Your task to perform on an android device: clear history in the chrome app Image 0: 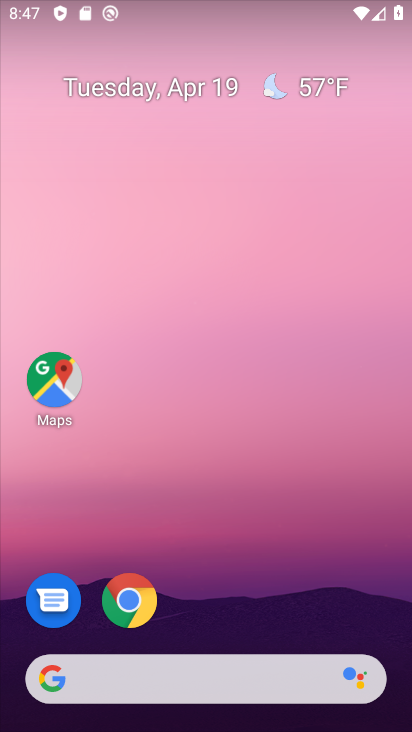
Step 0: drag from (360, 610) to (352, 120)
Your task to perform on an android device: clear history in the chrome app Image 1: 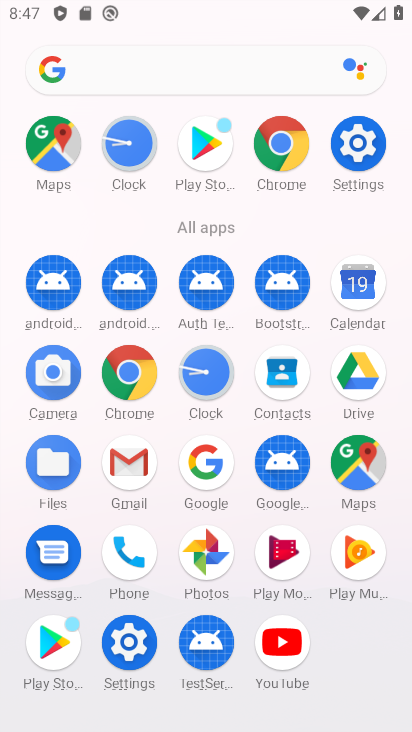
Step 1: click (291, 157)
Your task to perform on an android device: clear history in the chrome app Image 2: 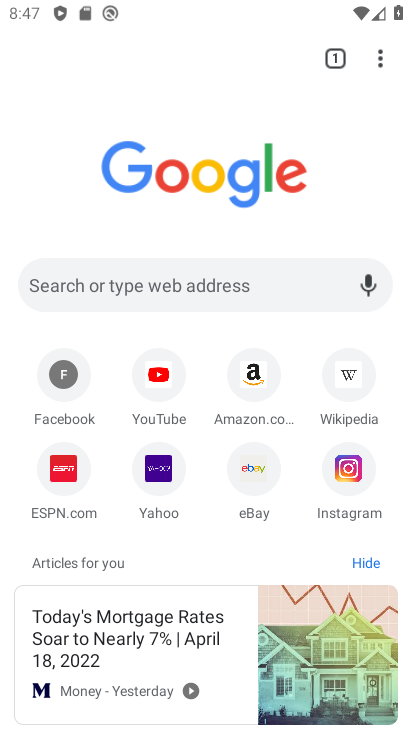
Step 2: click (376, 55)
Your task to perform on an android device: clear history in the chrome app Image 3: 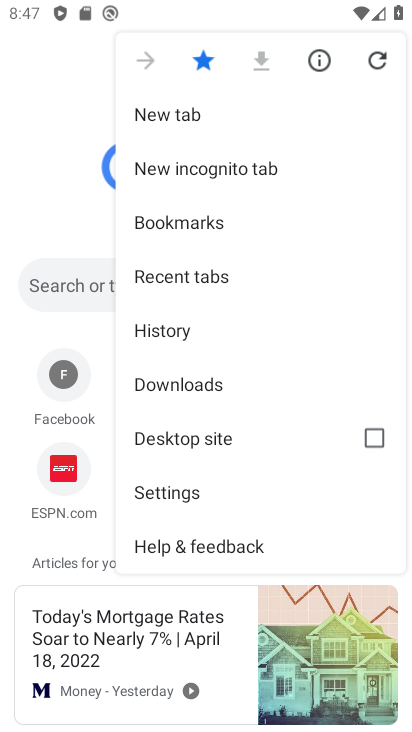
Step 3: click (176, 334)
Your task to perform on an android device: clear history in the chrome app Image 4: 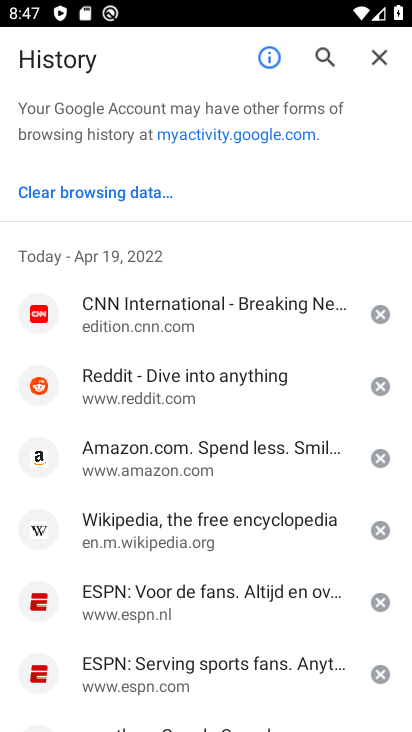
Step 4: click (132, 189)
Your task to perform on an android device: clear history in the chrome app Image 5: 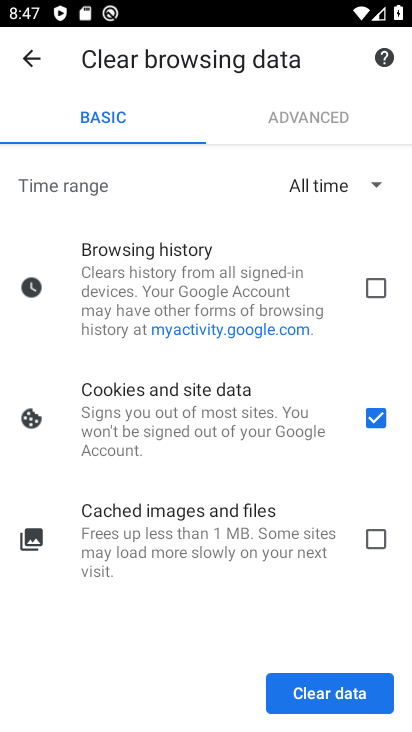
Step 5: click (334, 681)
Your task to perform on an android device: clear history in the chrome app Image 6: 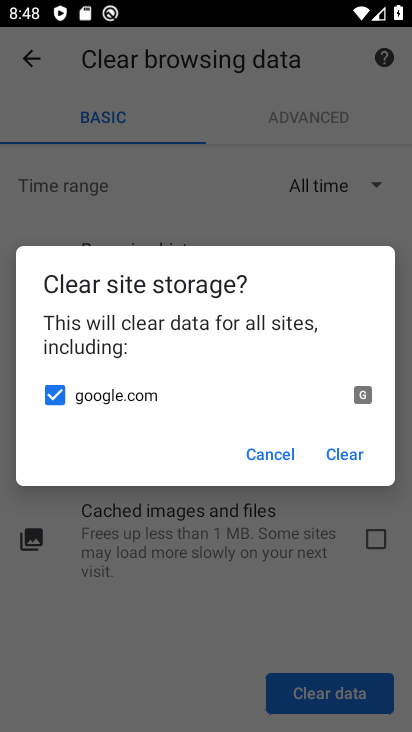
Step 6: click (344, 454)
Your task to perform on an android device: clear history in the chrome app Image 7: 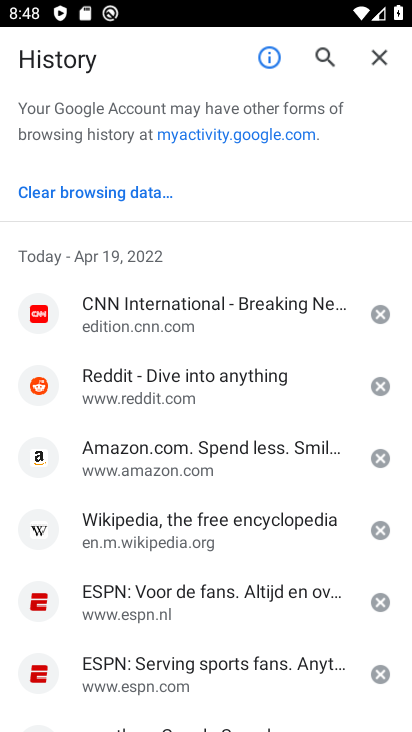
Step 7: click (119, 194)
Your task to perform on an android device: clear history in the chrome app Image 8: 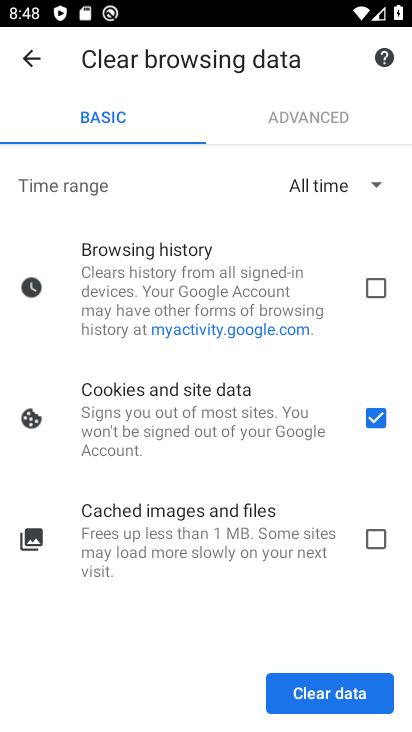
Step 8: click (366, 281)
Your task to perform on an android device: clear history in the chrome app Image 9: 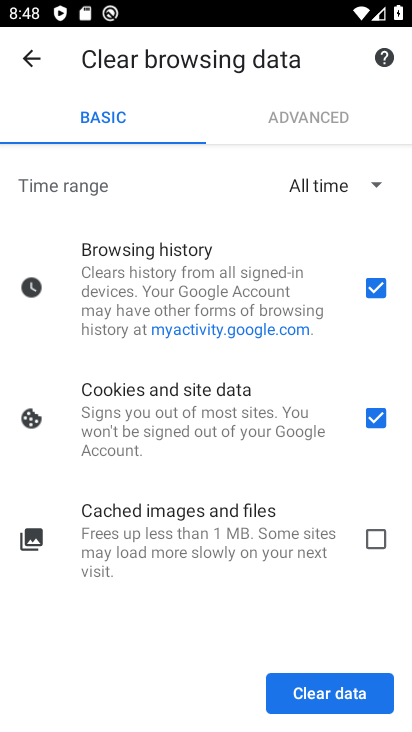
Step 9: click (371, 536)
Your task to perform on an android device: clear history in the chrome app Image 10: 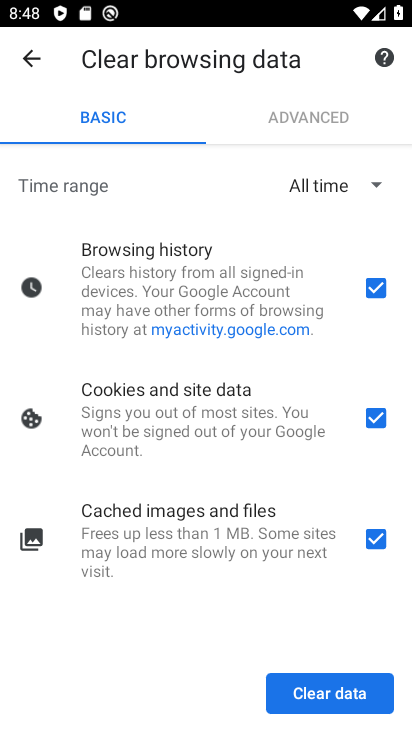
Step 10: click (315, 698)
Your task to perform on an android device: clear history in the chrome app Image 11: 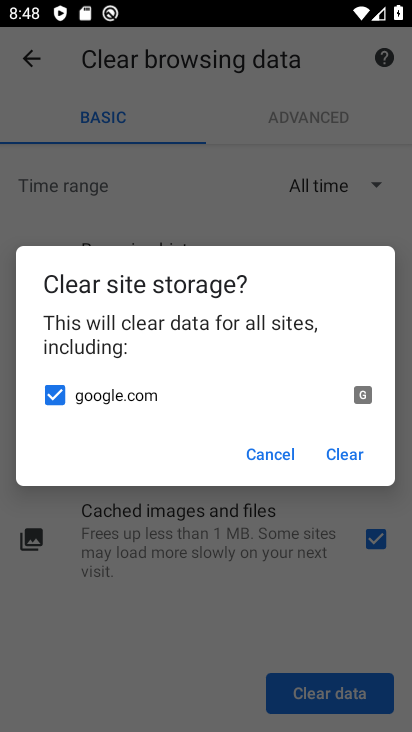
Step 11: click (335, 453)
Your task to perform on an android device: clear history in the chrome app Image 12: 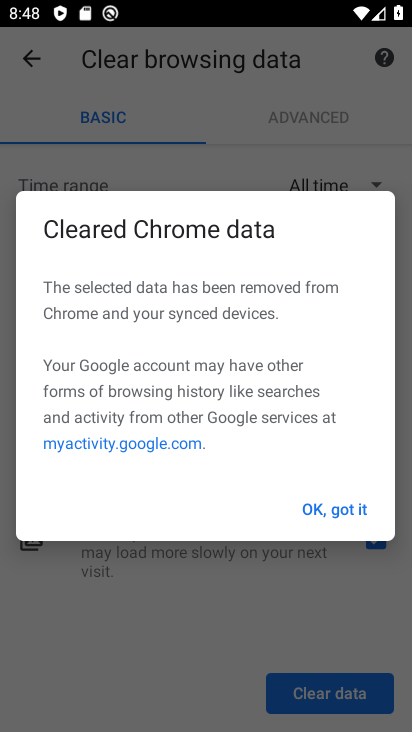
Step 12: click (335, 509)
Your task to perform on an android device: clear history in the chrome app Image 13: 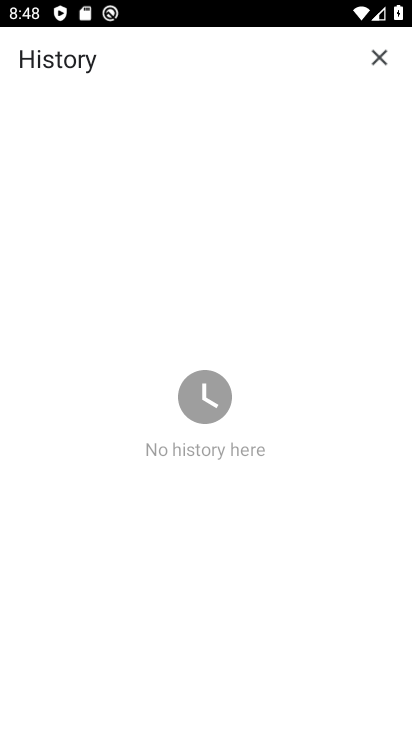
Step 13: task complete